Your task to perform on an android device: Search for vegetarian restaurants on Maps Image 0: 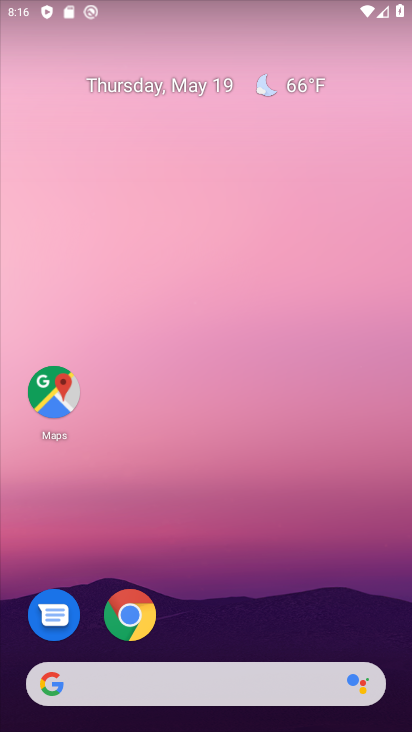
Step 0: click (53, 397)
Your task to perform on an android device: Search for vegetarian restaurants on Maps Image 1: 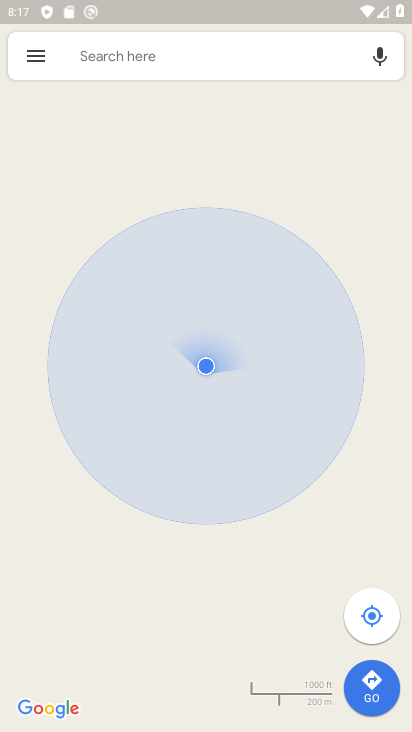
Step 1: click (202, 61)
Your task to perform on an android device: Search for vegetarian restaurants on Maps Image 2: 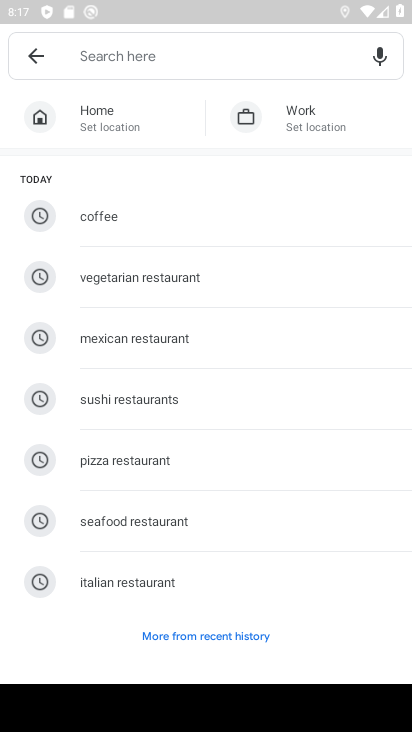
Step 2: type "vegetarian restaurants"
Your task to perform on an android device: Search for vegetarian restaurants on Maps Image 3: 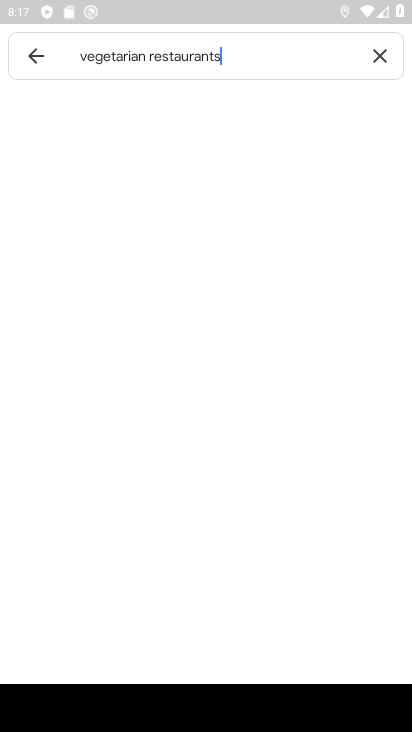
Step 3: type ""
Your task to perform on an android device: Search for vegetarian restaurants on Maps Image 4: 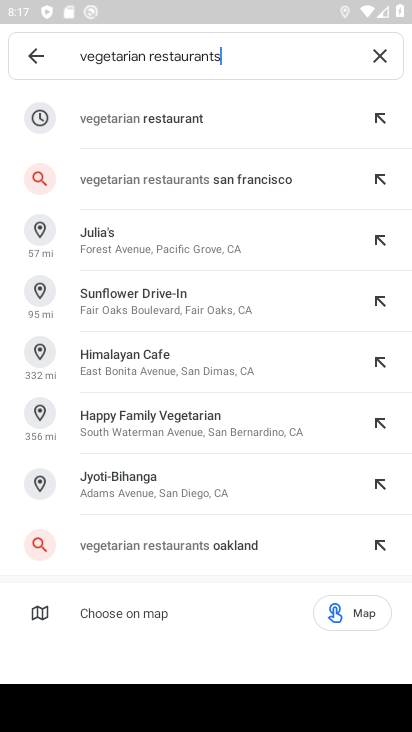
Step 4: click (138, 116)
Your task to perform on an android device: Search for vegetarian restaurants on Maps Image 5: 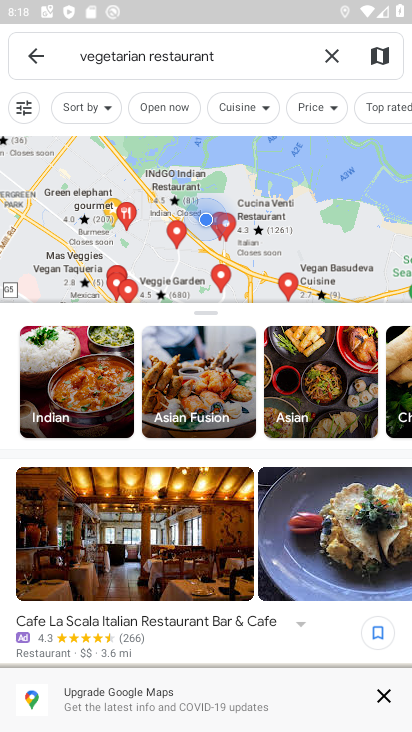
Step 5: task complete